Your task to perform on an android device: delete the emails in spam in the gmail app Image 0: 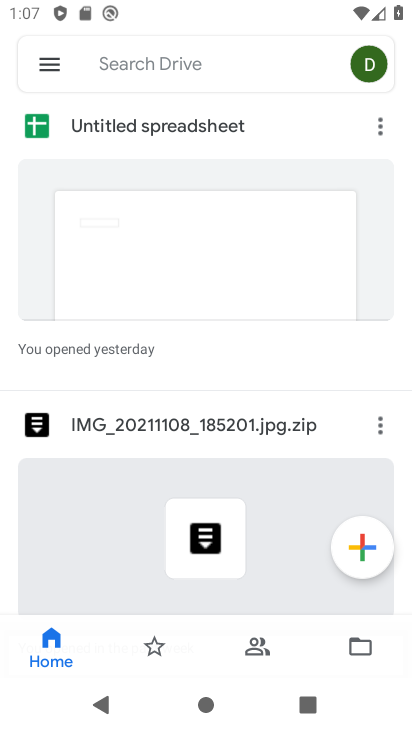
Step 0: press home button
Your task to perform on an android device: delete the emails in spam in the gmail app Image 1: 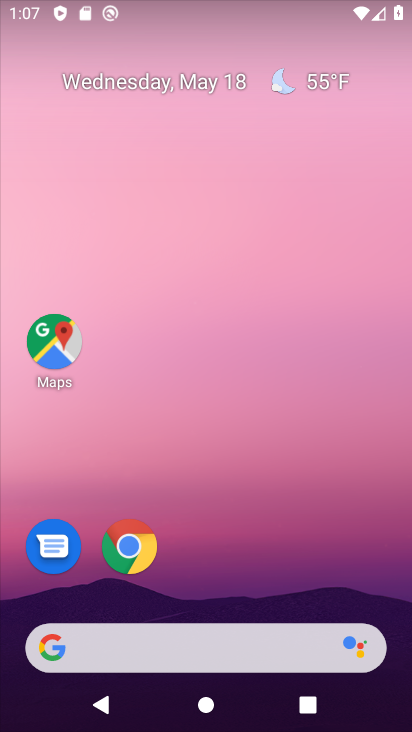
Step 1: drag from (382, 560) to (350, 196)
Your task to perform on an android device: delete the emails in spam in the gmail app Image 2: 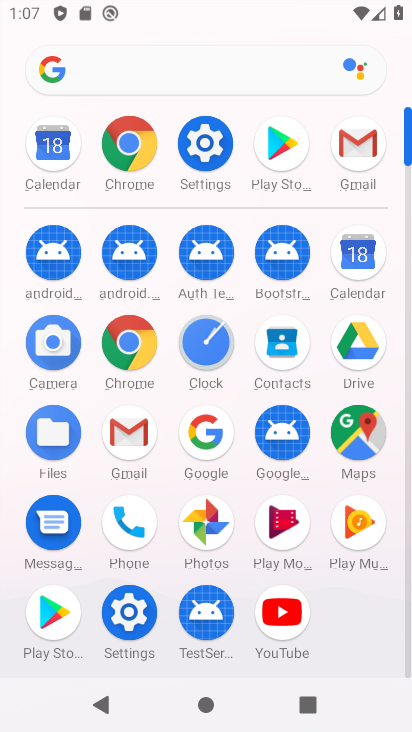
Step 2: click (137, 433)
Your task to perform on an android device: delete the emails in spam in the gmail app Image 3: 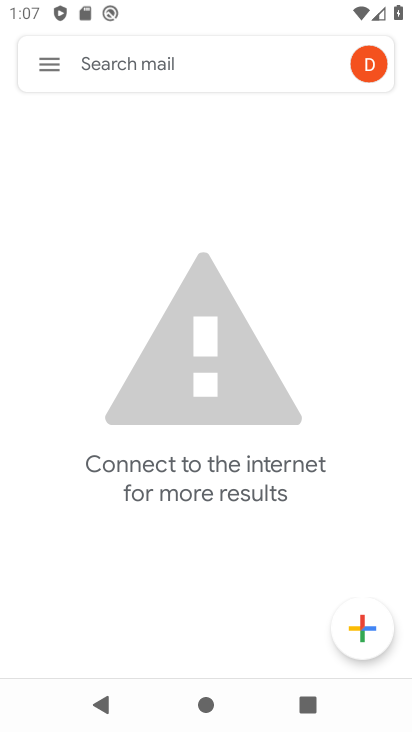
Step 3: click (44, 62)
Your task to perform on an android device: delete the emails in spam in the gmail app Image 4: 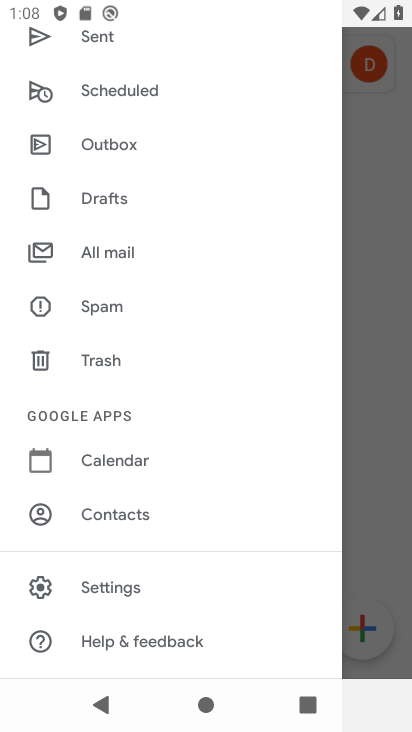
Step 4: click (116, 306)
Your task to perform on an android device: delete the emails in spam in the gmail app Image 5: 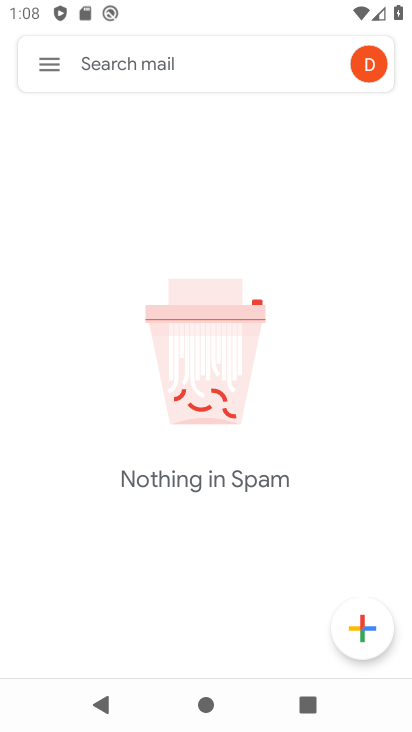
Step 5: task complete